Your task to perform on an android device: Open the calendar and show me this week's events? Image 0: 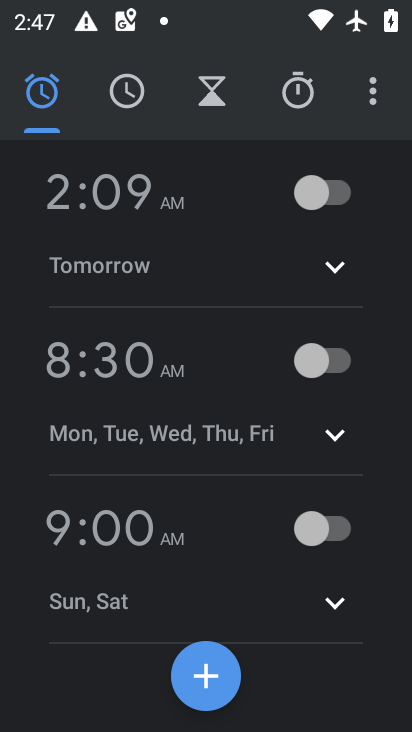
Step 0: press home button
Your task to perform on an android device: Open the calendar and show me this week's events? Image 1: 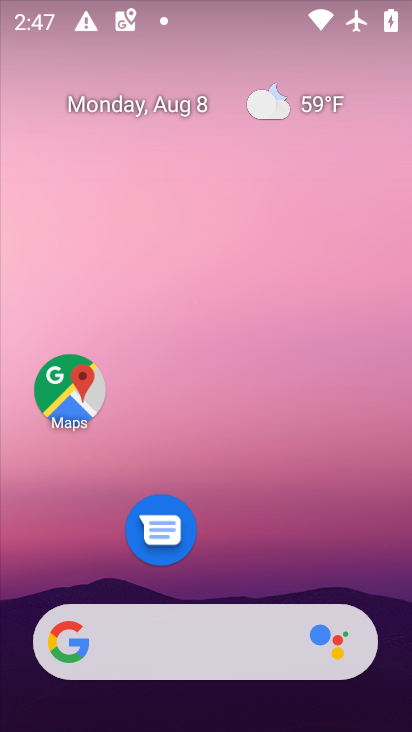
Step 1: drag from (230, 513) to (226, 100)
Your task to perform on an android device: Open the calendar and show me this week's events? Image 2: 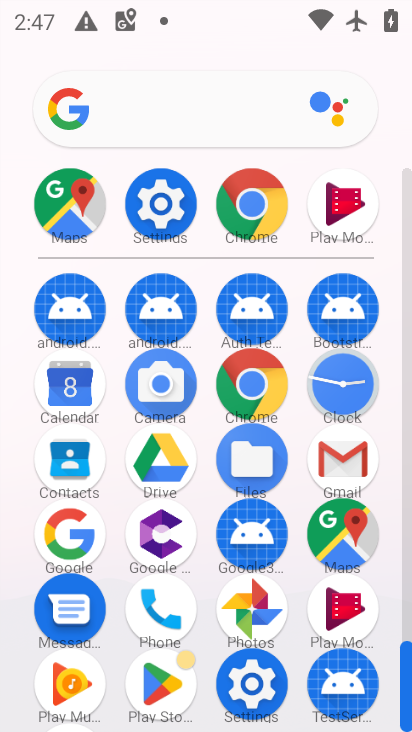
Step 2: click (76, 379)
Your task to perform on an android device: Open the calendar and show me this week's events? Image 3: 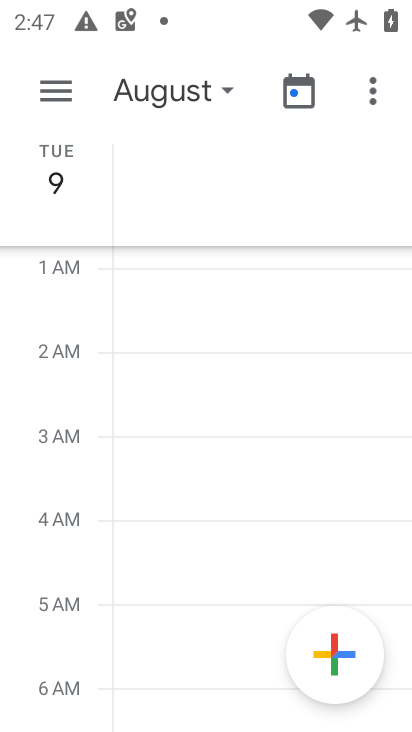
Step 3: click (227, 89)
Your task to perform on an android device: Open the calendar and show me this week's events? Image 4: 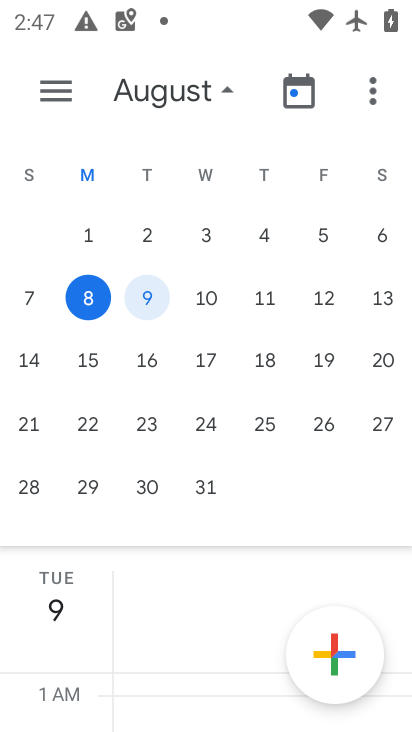
Step 4: click (151, 299)
Your task to perform on an android device: Open the calendar and show me this week's events? Image 5: 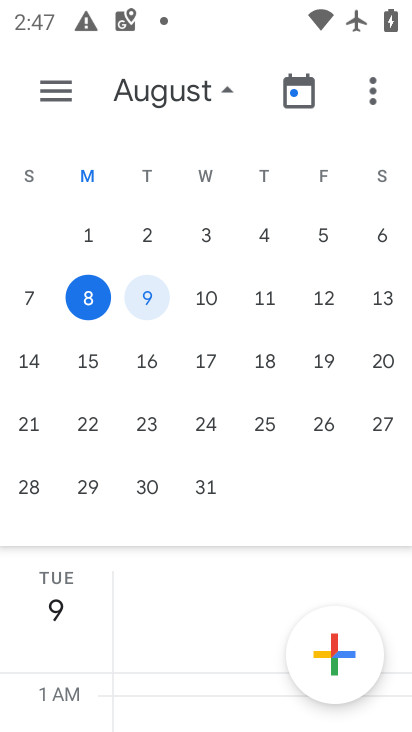
Step 5: click (57, 96)
Your task to perform on an android device: Open the calendar and show me this week's events? Image 6: 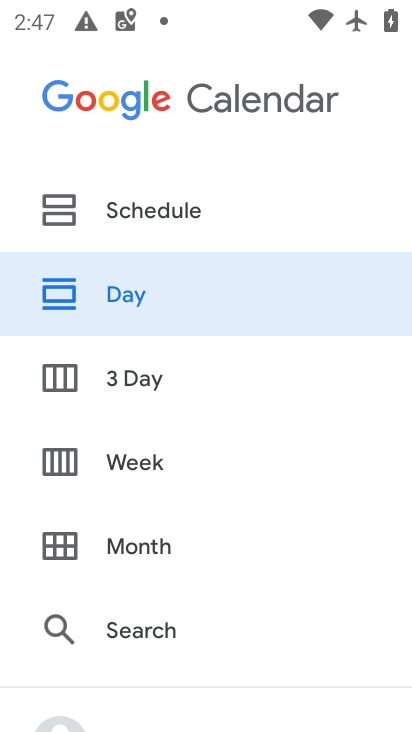
Step 6: click (136, 464)
Your task to perform on an android device: Open the calendar and show me this week's events? Image 7: 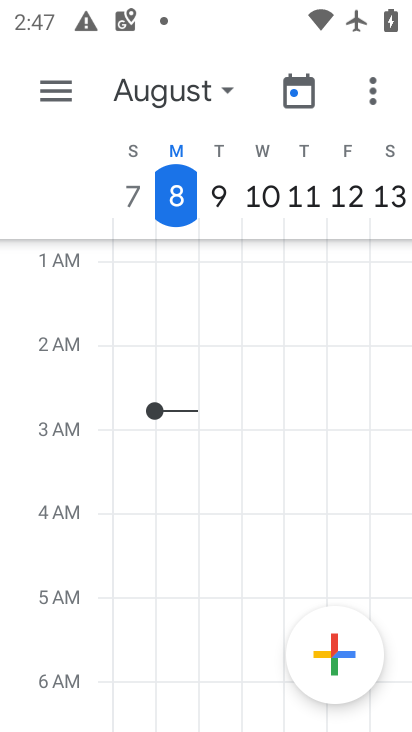
Step 7: task complete